Your task to perform on an android device: toggle translation in the chrome app Image 0: 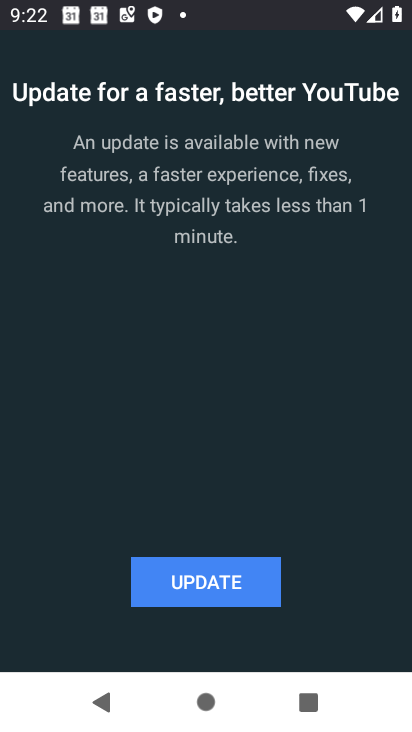
Step 0: press home button
Your task to perform on an android device: toggle translation in the chrome app Image 1: 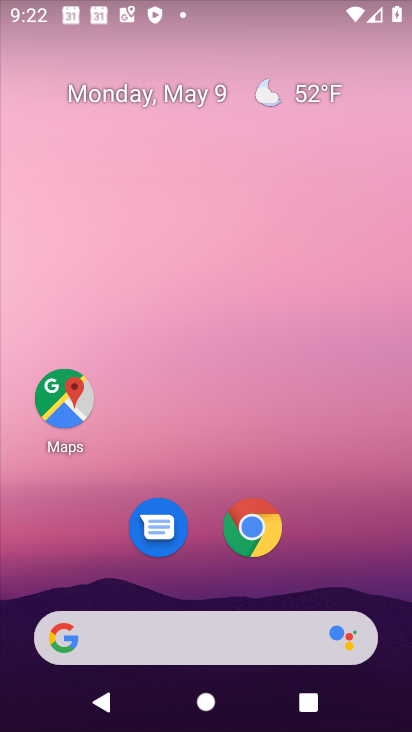
Step 1: click (258, 527)
Your task to perform on an android device: toggle translation in the chrome app Image 2: 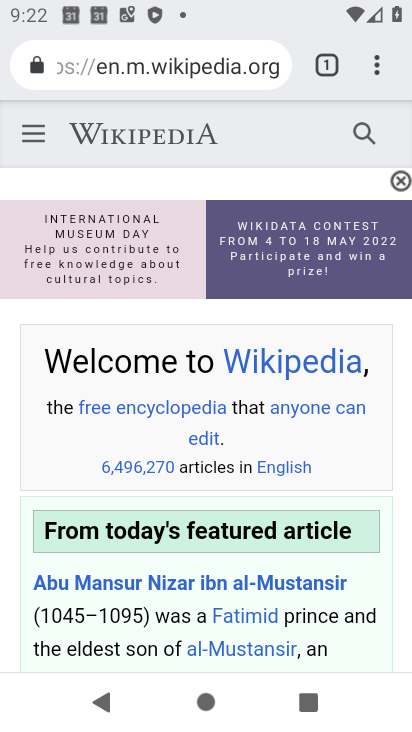
Step 2: click (368, 67)
Your task to perform on an android device: toggle translation in the chrome app Image 3: 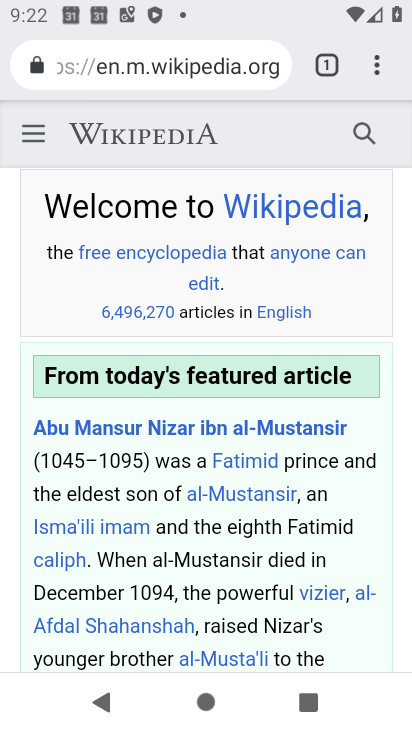
Step 3: click (365, 69)
Your task to perform on an android device: toggle translation in the chrome app Image 4: 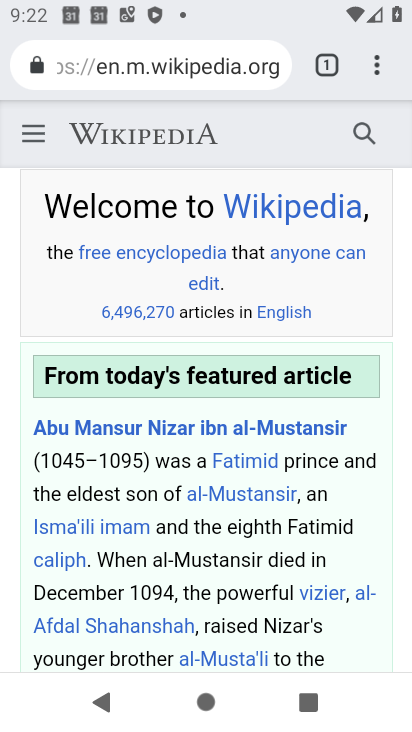
Step 4: click (368, 55)
Your task to perform on an android device: toggle translation in the chrome app Image 5: 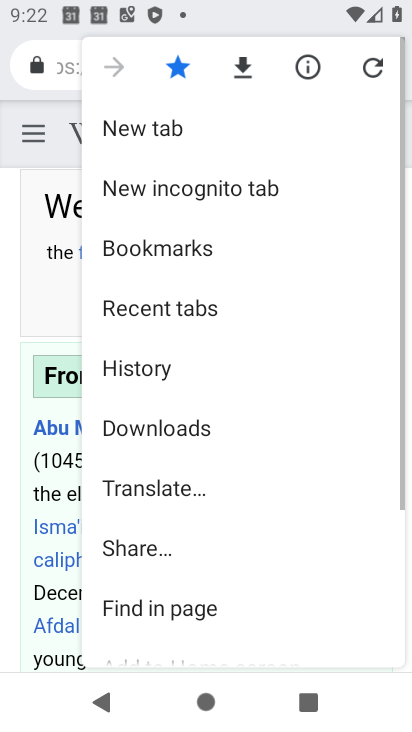
Step 5: drag from (211, 581) to (244, 124)
Your task to perform on an android device: toggle translation in the chrome app Image 6: 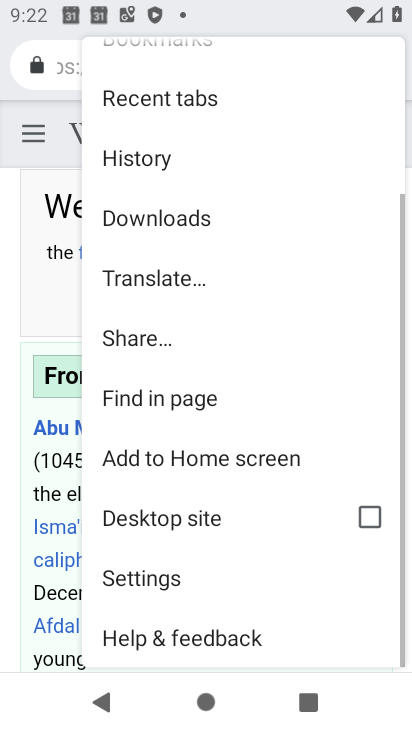
Step 6: click (155, 574)
Your task to perform on an android device: toggle translation in the chrome app Image 7: 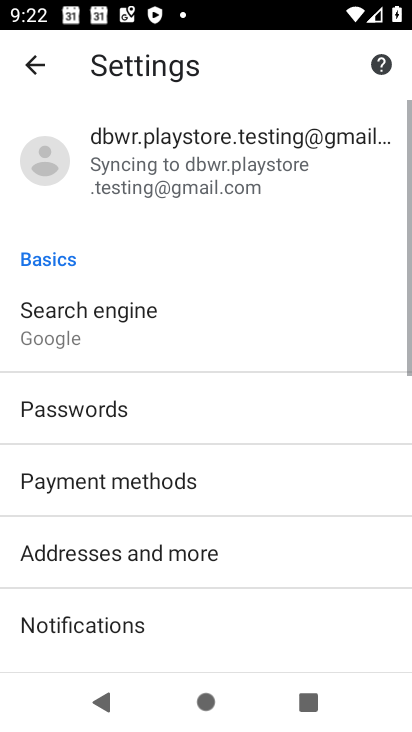
Step 7: drag from (217, 559) to (253, 42)
Your task to perform on an android device: toggle translation in the chrome app Image 8: 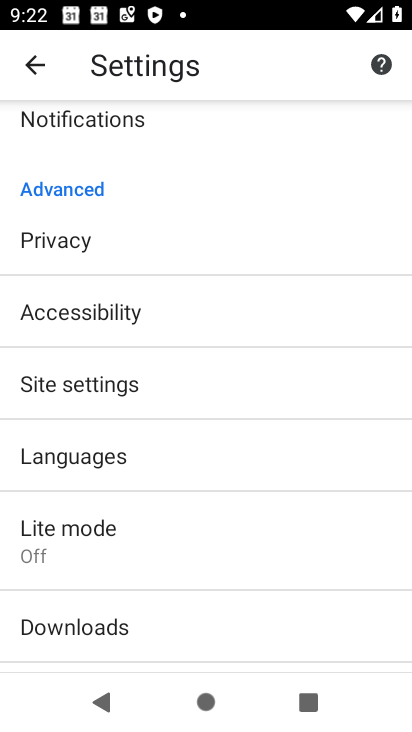
Step 8: click (112, 456)
Your task to perform on an android device: toggle translation in the chrome app Image 9: 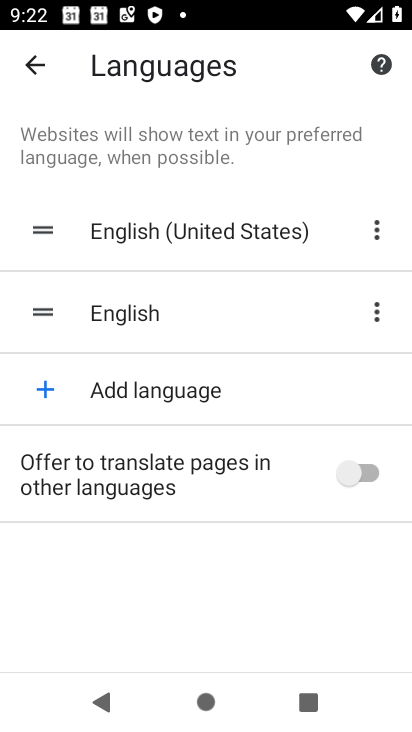
Step 9: click (366, 475)
Your task to perform on an android device: toggle translation in the chrome app Image 10: 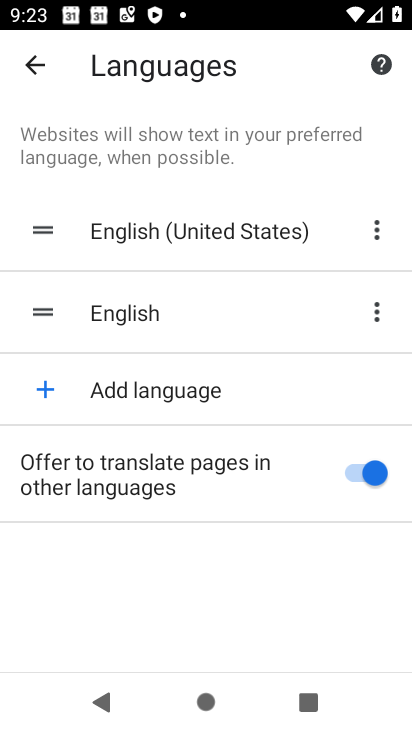
Step 10: task complete